Your task to perform on an android device: Show me productivity apps on the Play Store Image 0: 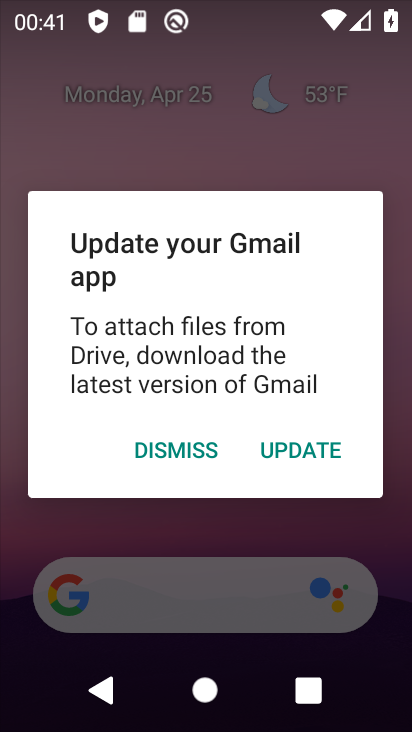
Step 0: press home button
Your task to perform on an android device: Show me productivity apps on the Play Store Image 1: 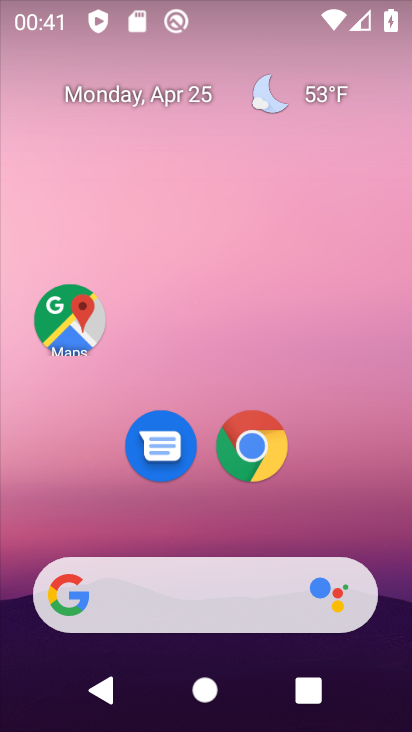
Step 1: drag from (179, 510) to (241, 9)
Your task to perform on an android device: Show me productivity apps on the Play Store Image 2: 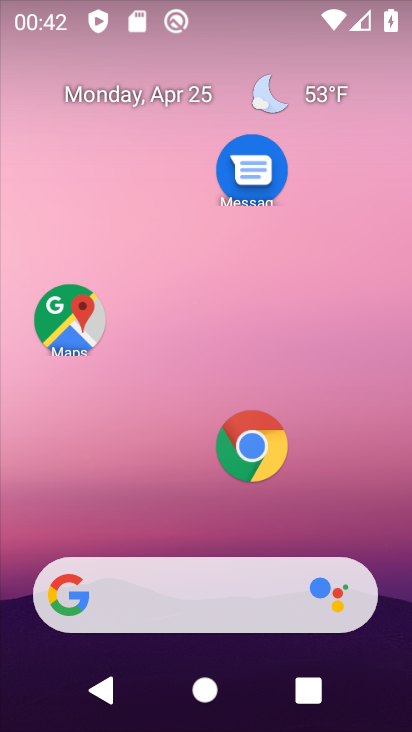
Step 2: drag from (195, 518) to (248, 7)
Your task to perform on an android device: Show me productivity apps on the Play Store Image 3: 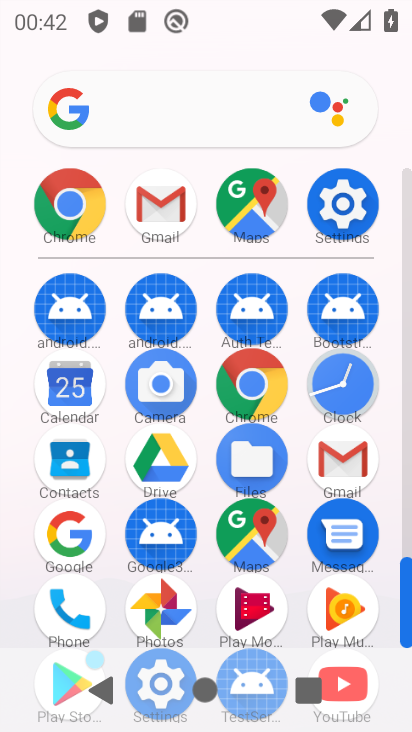
Step 3: drag from (205, 434) to (230, 250)
Your task to perform on an android device: Show me productivity apps on the Play Store Image 4: 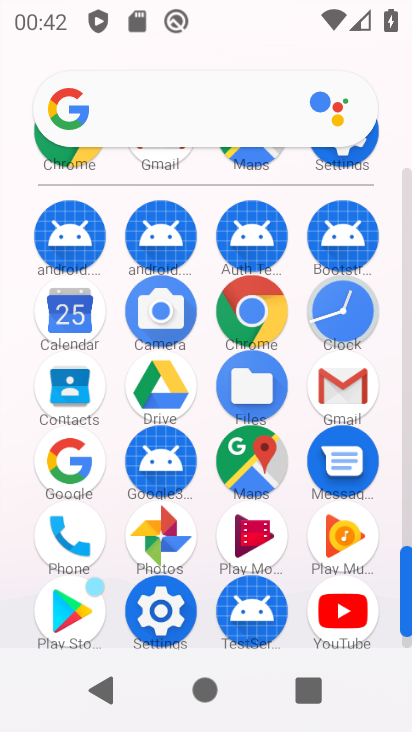
Step 4: click (65, 602)
Your task to perform on an android device: Show me productivity apps on the Play Store Image 5: 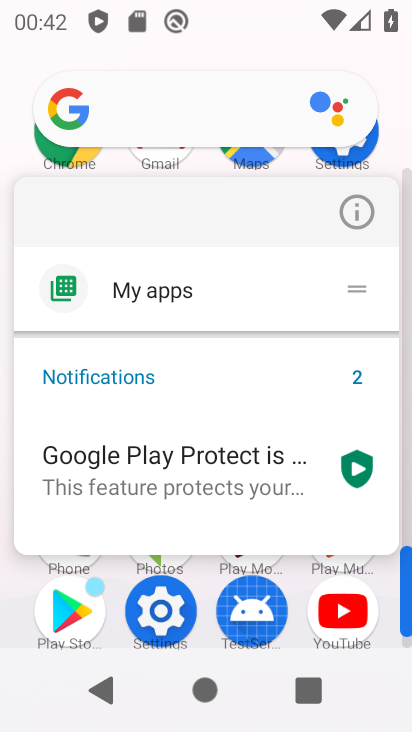
Step 5: click (63, 609)
Your task to perform on an android device: Show me productivity apps on the Play Store Image 6: 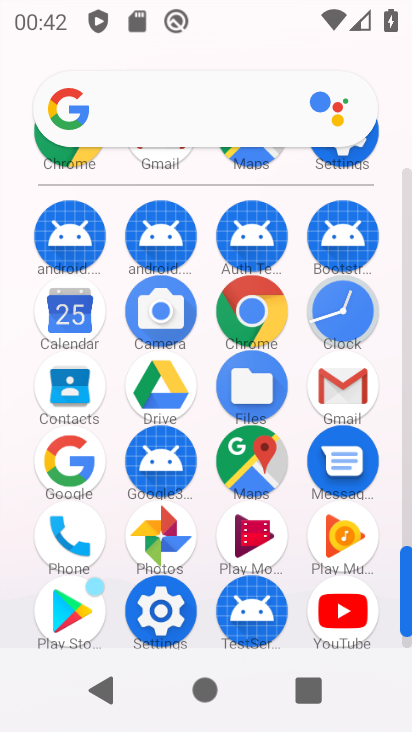
Step 6: click (76, 606)
Your task to perform on an android device: Show me productivity apps on the Play Store Image 7: 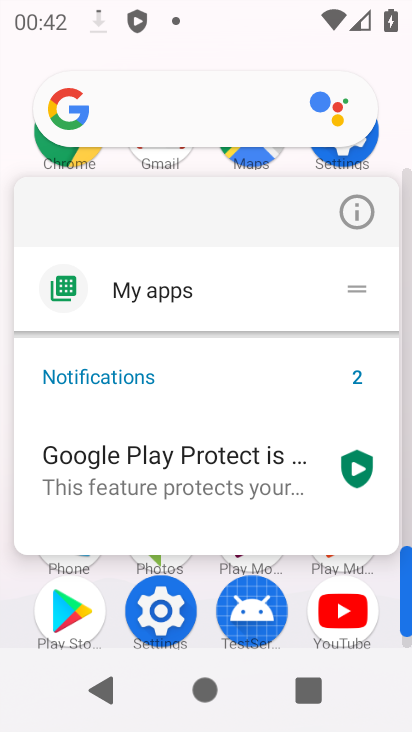
Step 7: click (76, 606)
Your task to perform on an android device: Show me productivity apps on the Play Store Image 8: 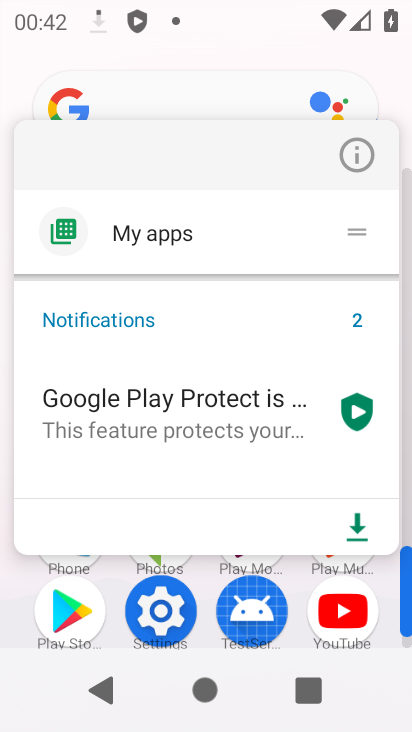
Step 8: click (360, 155)
Your task to perform on an android device: Show me productivity apps on the Play Store Image 9: 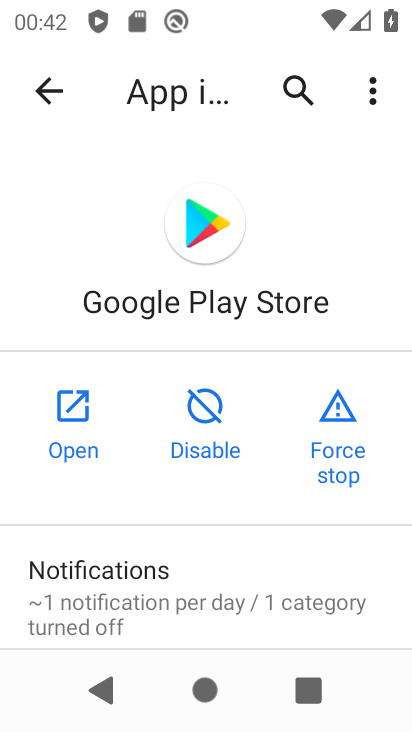
Step 9: click (85, 418)
Your task to perform on an android device: Show me productivity apps on the Play Store Image 10: 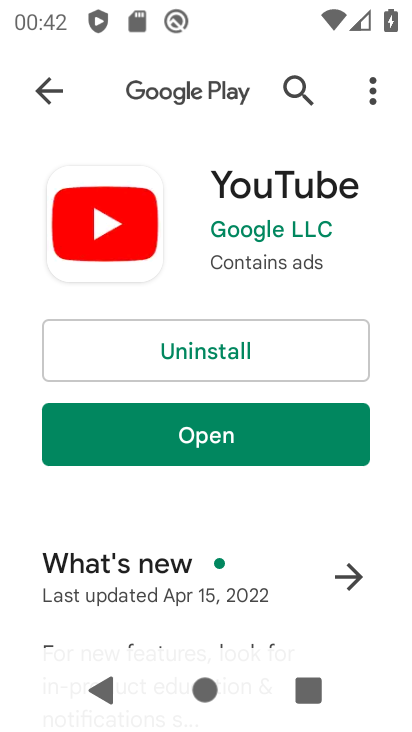
Step 10: click (61, 89)
Your task to perform on an android device: Show me productivity apps on the Play Store Image 11: 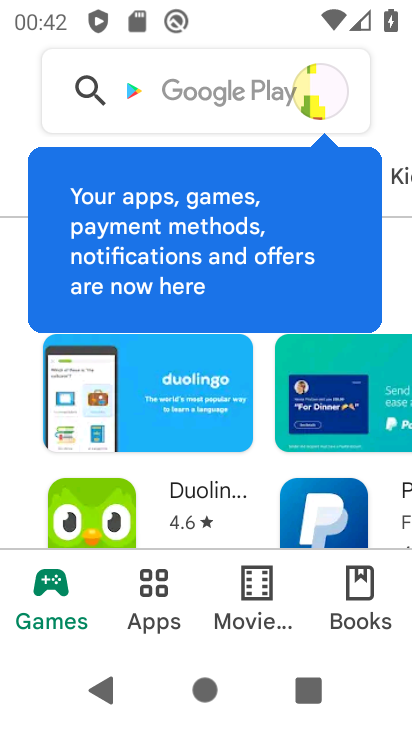
Step 11: click (151, 595)
Your task to perform on an android device: Show me productivity apps on the Play Store Image 12: 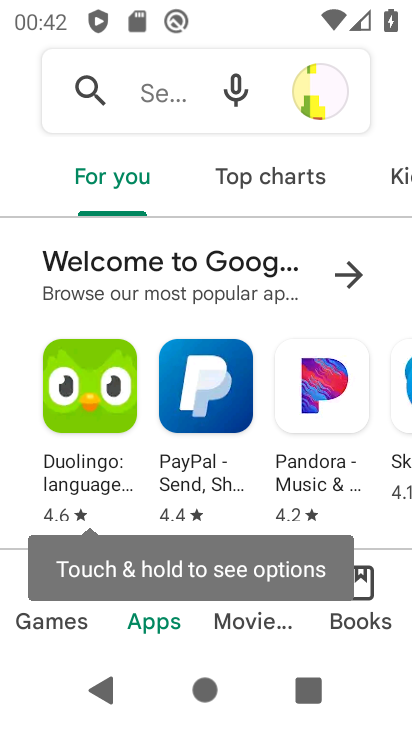
Step 12: drag from (320, 180) to (0, 177)
Your task to perform on an android device: Show me productivity apps on the Play Store Image 13: 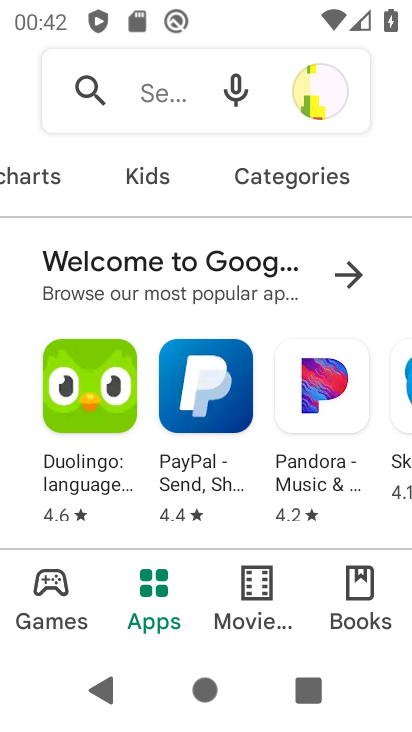
Step 13: click (275, 175)
Your task to perform on an android device: Show me productivity apps on the Play Store Image 14: 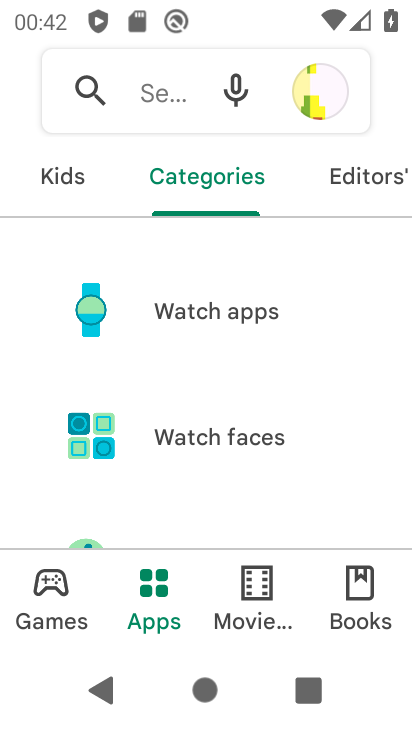
Step 14: drag from (227, 458) to (266, 187)
Your task to perform on an android device: Show me productivity apps on the Play Store Image 15: 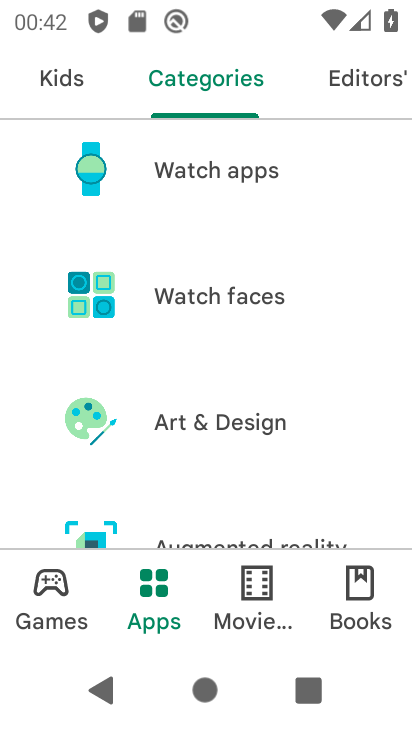
Step 15: drag from (197, 428) to (249, 154)
Your task to perform on an android device: Show me productivity apps on the Play Store Image 16: 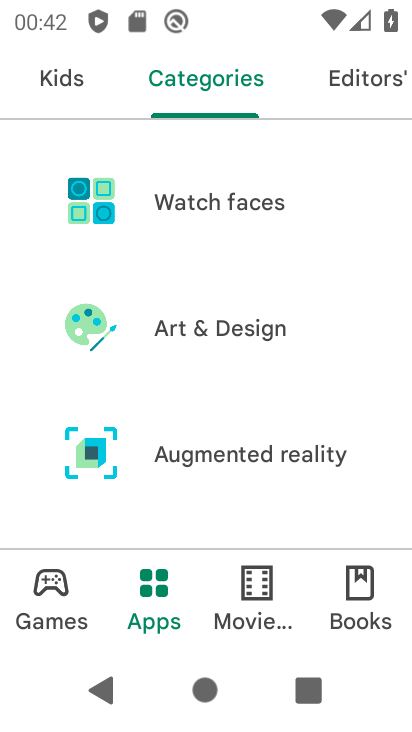
Step 16: drag from (216, 444) to (278, 108)
Your task to perform on an android device: Show me productivity apps on the Play Store Image 17: 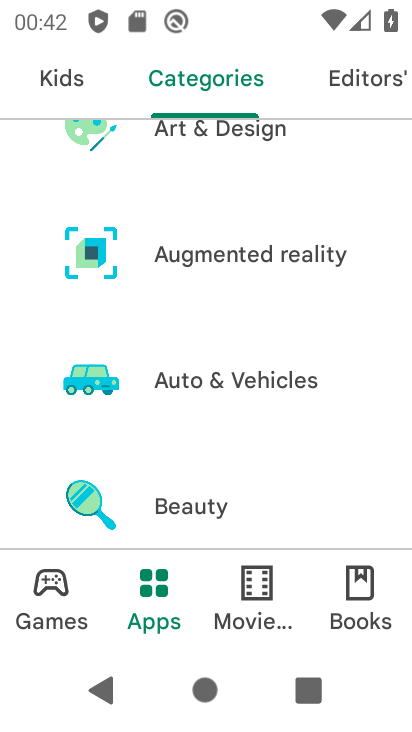
Step 17: drag from (250, 464) to (313, 209)
Your task to perform on an android device: Show me productivity apps on the Play Store Image 18: 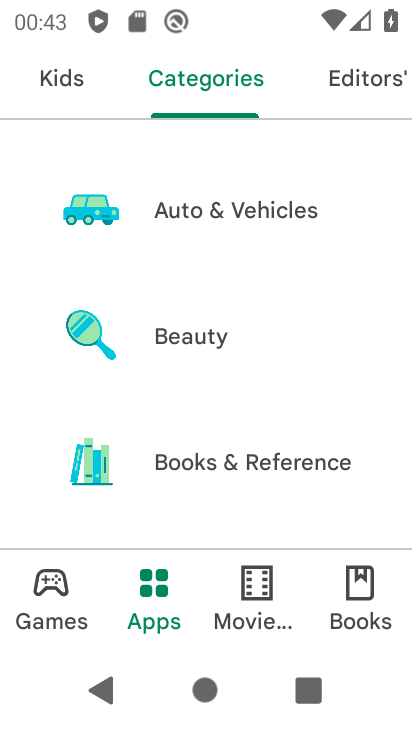
Step 18: drag from (191, 483) to (276, 83)
Your task to perform on an android device: Show me productivity apps on the Play Store Image 19: 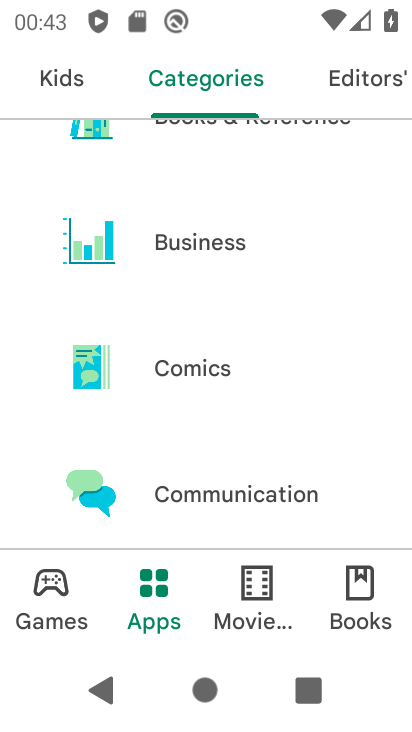
Step 19: drag from (205, 468) to (314, 78)
Your task to perform on an android device: Show me productivity apps on the Play Store Image 20: 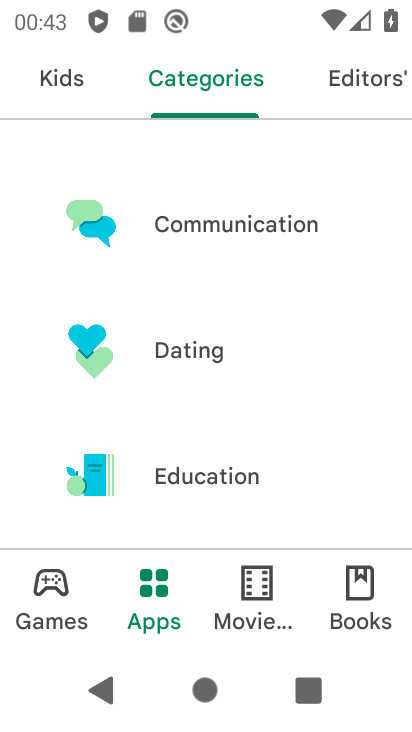
Step 20: drag from (231, 475) to (293, 100)
Your task to perform on an android device: Show me productivity apps on the Play Store Image 21: 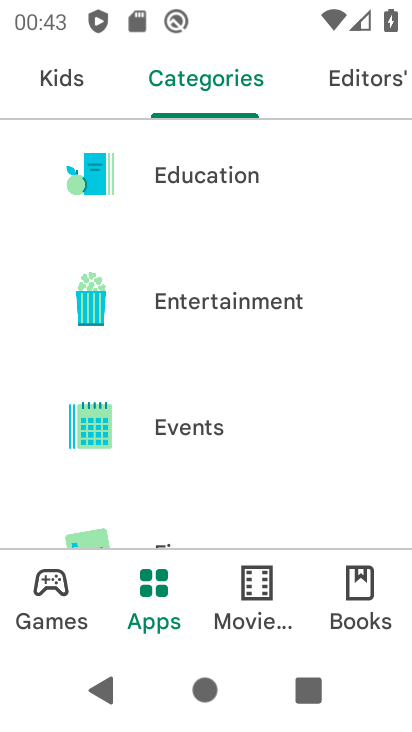
Step 21: drag from (201, 470) to (256, 186)
Your task to perform on an android device: Show me productivity apps on the Play Store Image 22: 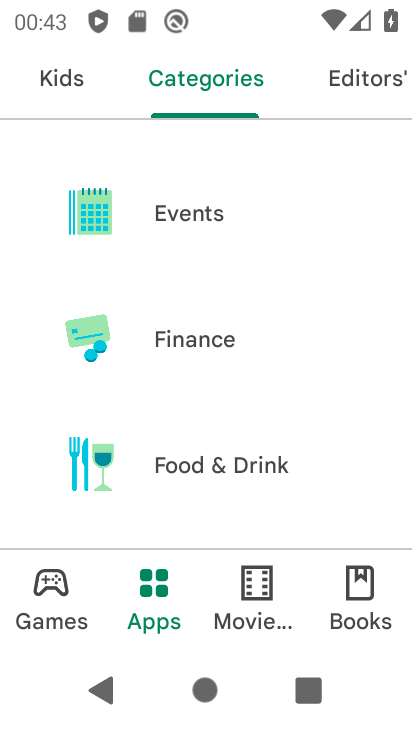
Step 22: drag from (199, 492) to (278, 193)
Your task to perform on an android device: Show me productivity apps on the Play Store Image 23: 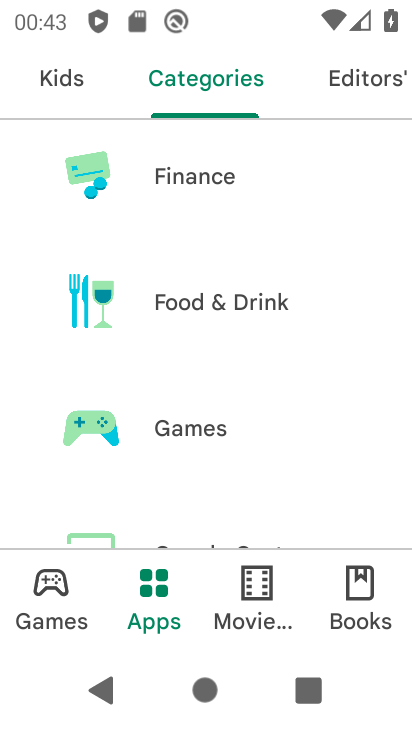
Step 23: drag from (154, 538) to (230, 180)
Your task to perform on an android device: Show me productivity apps on the Play Store Image 24: 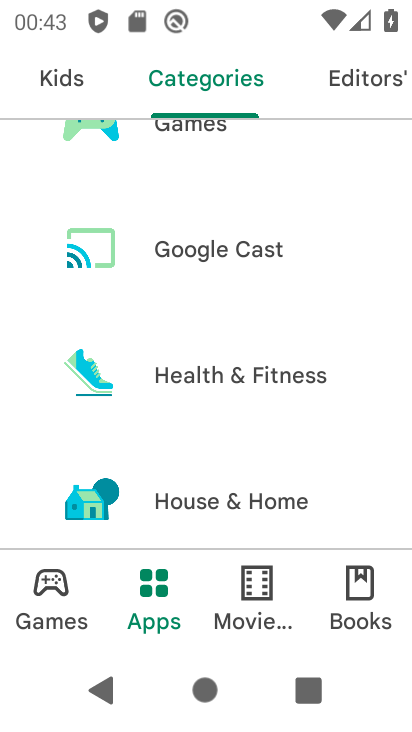
Step 24: drag from (200, 519) to (309, 15)
Your task to perform on an android device: Show me productivity apps on the Play Store Image 25: 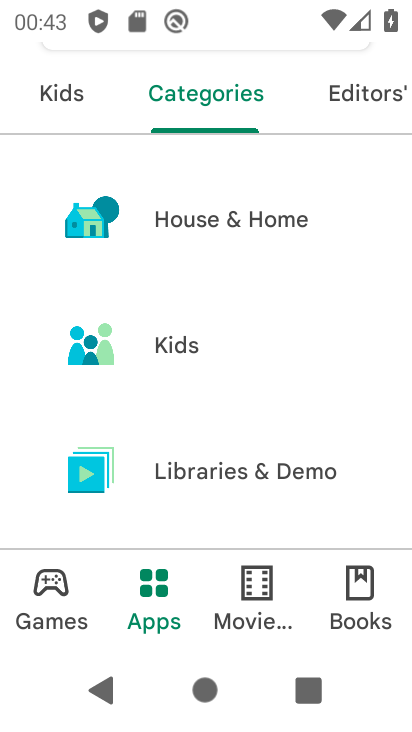
Step 25: drag from (234, 495) to (304, 4)
Your task to perform on an android device: Show me productivity apps on the Play Store Image 26: 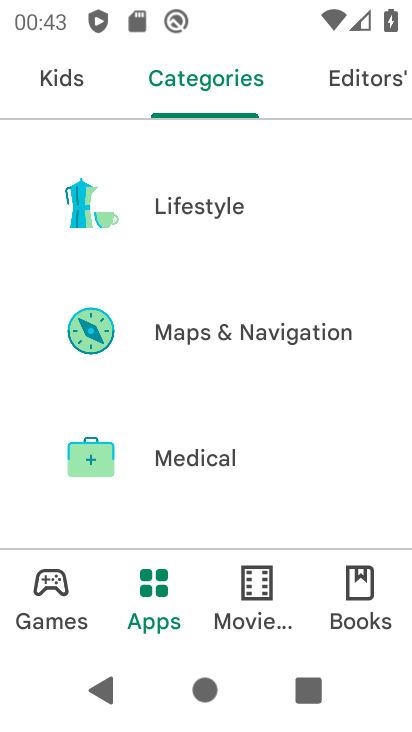
Step 26: drag from (205, 517) to (321, 2)
Your task to perform on an android device: Show me productivity apps on the Play Store Image 27: 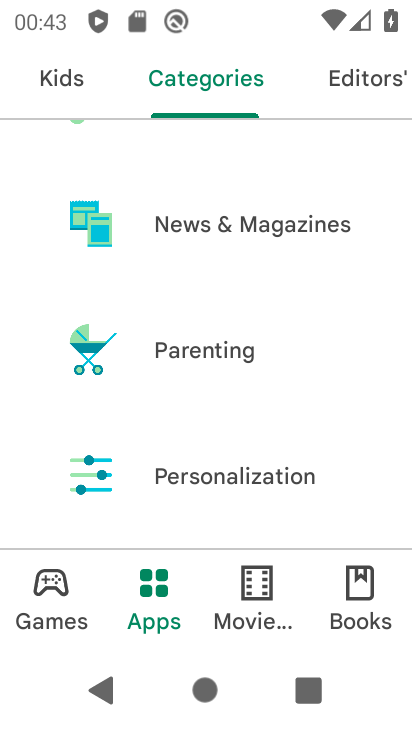
Step 27: drag from (229, 485) to (285, 143)
Your task to perform on an android device: Show me productivity apps on the Play Store Image 28: 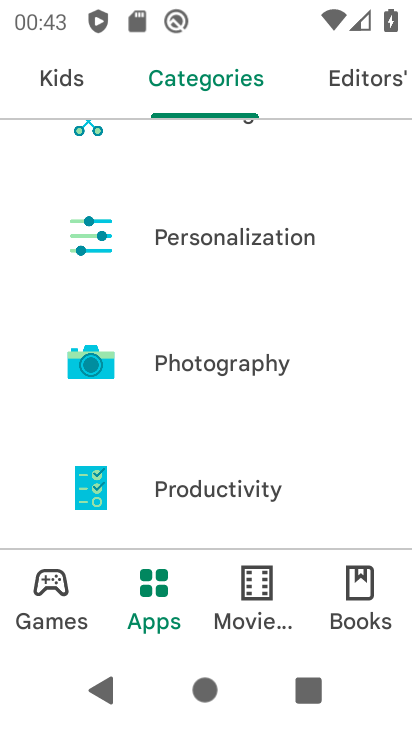
Step 28: click (224, 498)
Your task to perform on an android device: Show me productivity apps on the Play Store Image 29: 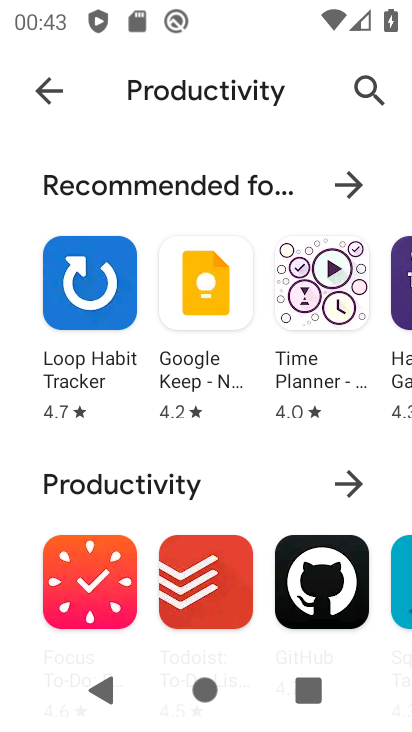
Step 29: task complete